Your task to perform on an android device: View the shopping cart on target.com. Search for usb-a on target.com, select the first entry, and add it to the cart. Image 0: 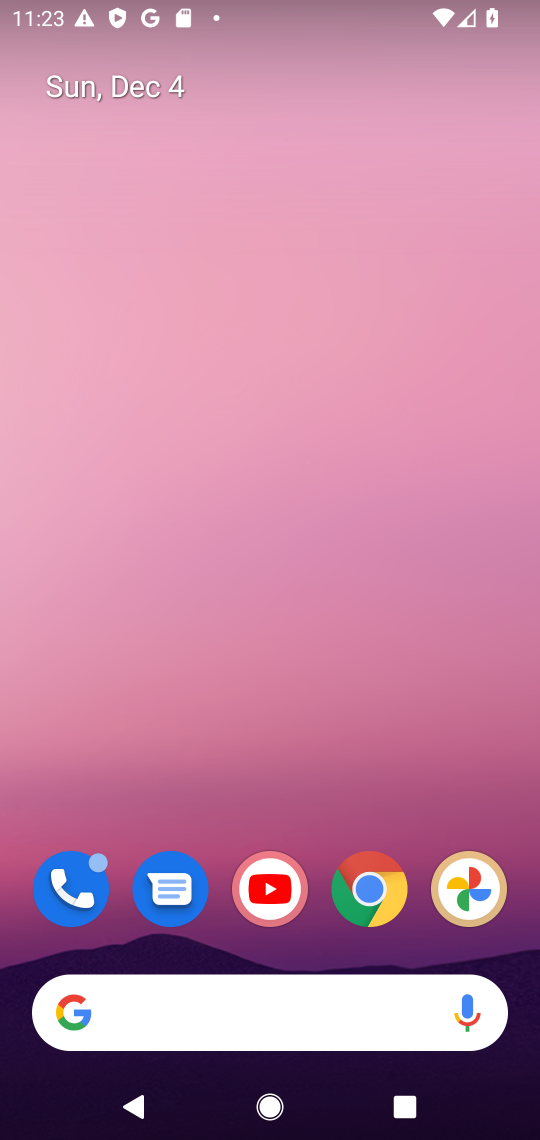
Step 0: click (377, 883)
Your task to perform on an android device: View the shopping cart on target.com. Search for usb-a on target.com, select the first entry, and add it to the cart. Image 1: 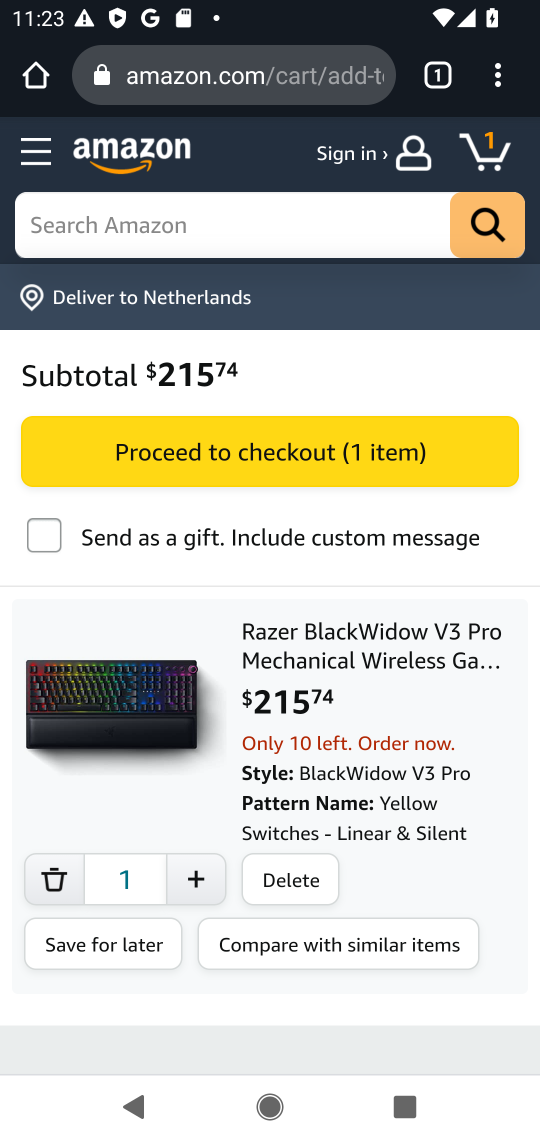
Step 1: click (345, 63)
Your task to perform on an android device: View the shopping cart on target.com. Search for usb-a on target.com, select the first entry, and add it to the cart. Image 2: 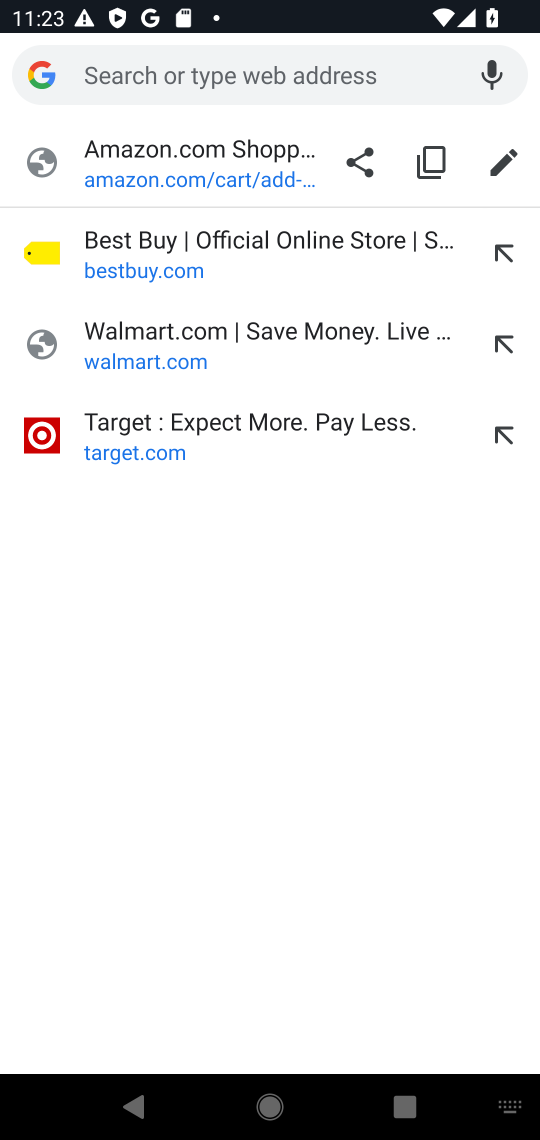
Step 2: click (226, 426)
Your task to perform on an android device: View the shopping cart on target.com. Search for usb-a on target.com, select the first entry, and add it to the cart. Image 3: 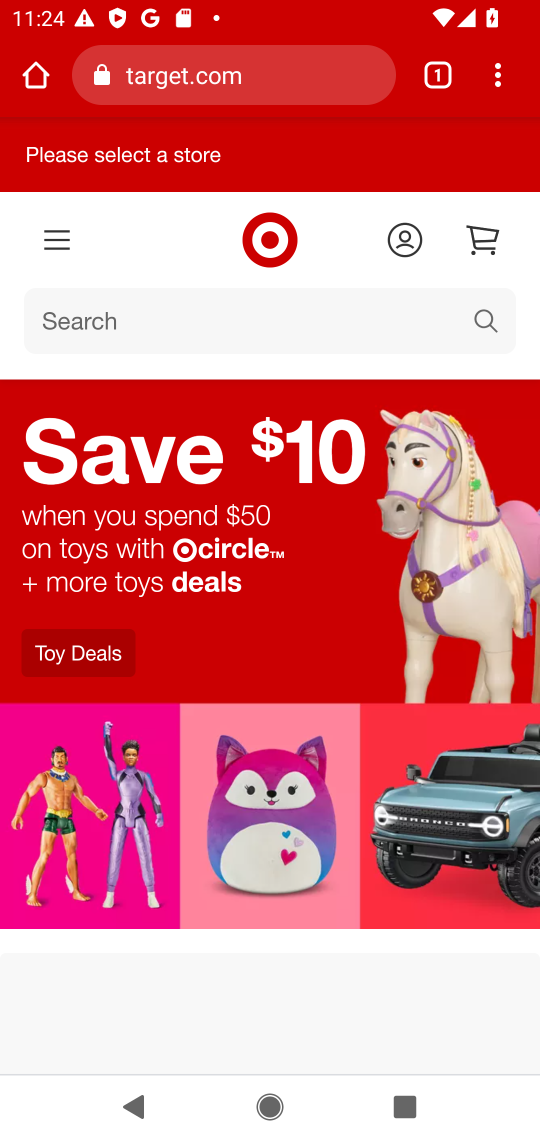
Step 3: click (485, 235)
Your task to perform on an android device: View the shopping cart on target.com. Search for usb-a on target.com, select the first entry, and add it to the cart. Image 4: 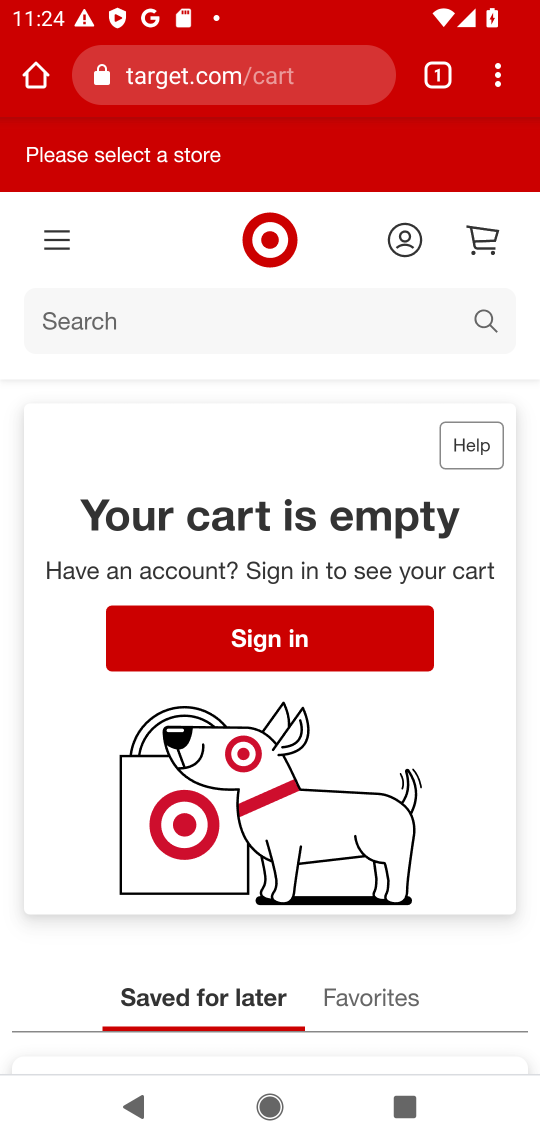
Step 4: click (486, 306)
Your task to perform on an android device: View the shopping cart on target.com. Search for usb-a on target.com, select the first entry, and add it to the cart. Image 5: 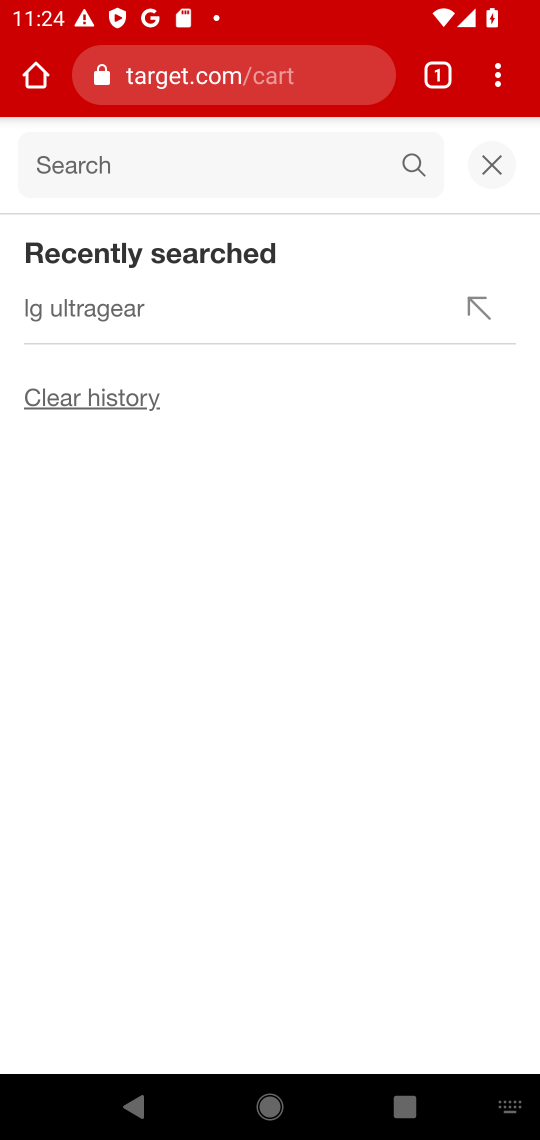
Step 5: type "usb-a"
Your task to perform on an android device: View the shopping cart on target.com. Search for usb-a on target.com, select the first entry, and add it to the cart. Image 6: 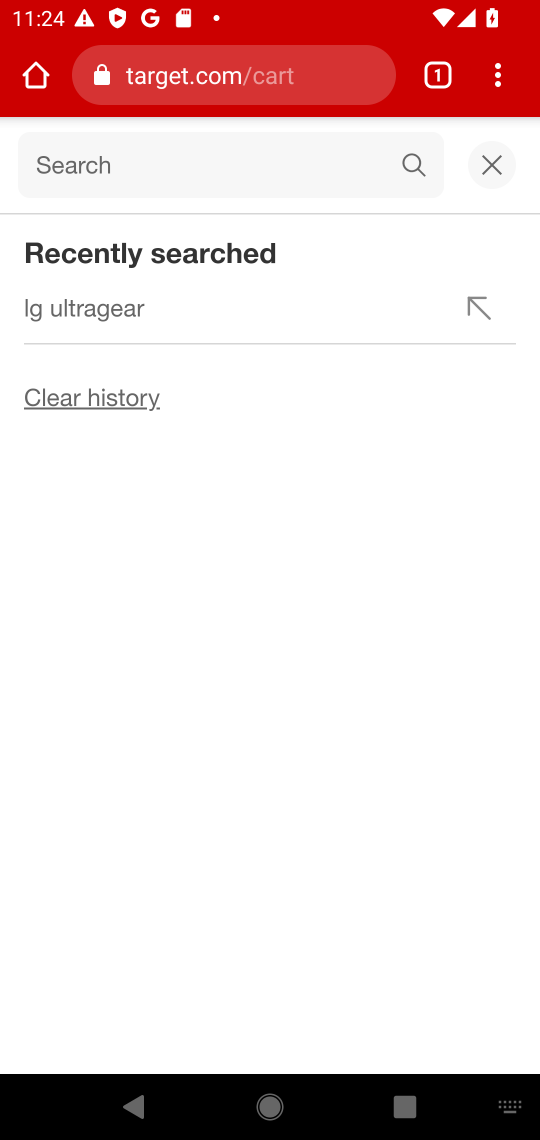
Step 6: press enter
Your task to perform on an android device: View the shopping cart on target.com. Search for usb-a on target.com, select the first entry, and add it to the cart. Image 7: 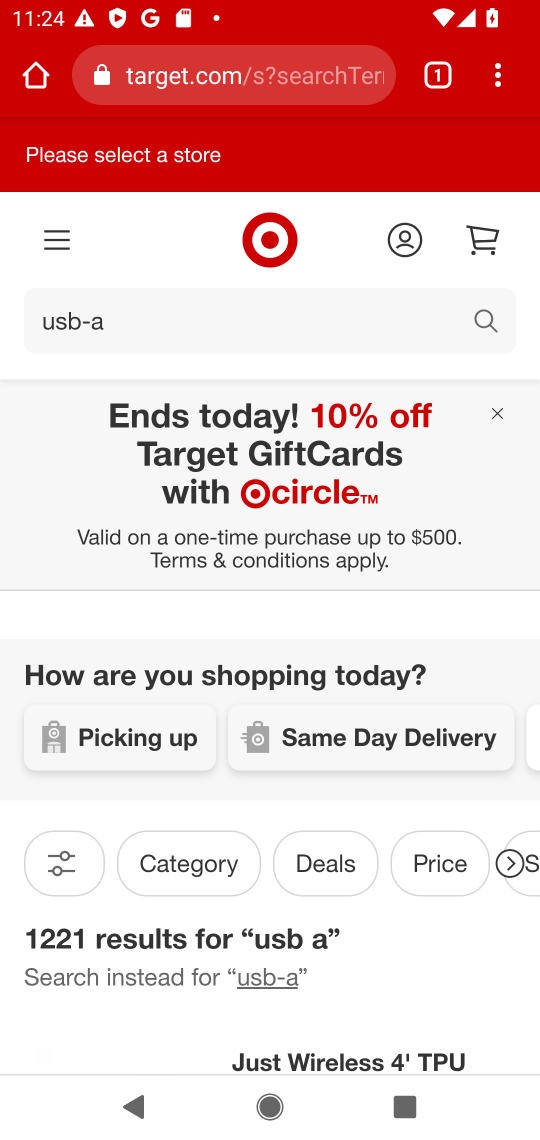
Step 7: drag from (410, 954) to (394, 338)
Your task to perform on an android device: View the shopping cart on target.com. Search for usb-a on target.com, select the first entry, and add it to the cart. Image 8: 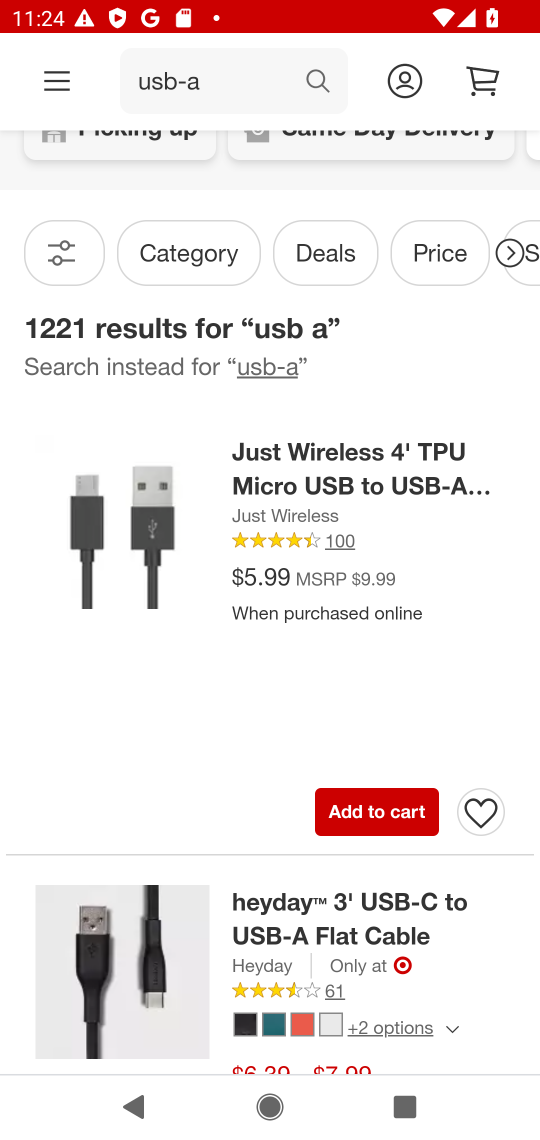
Step 8: drag from (498, 717) to (485, 423)
Your task to perform on an android device: View the shopping cart on target.com. Search for usb-a on target.com, select the first entry, and add it to the cart. Image 9: 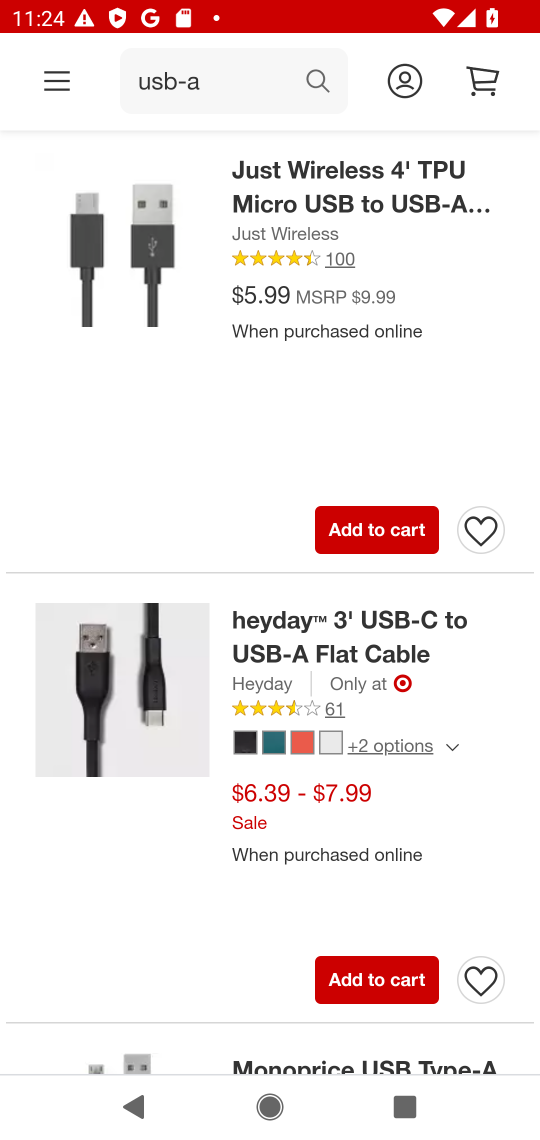
Step 9: drag from (492, 872) to (509, 528)
Your task to perform on an android device: View the shopping cart on target.com. Search for usb-a on target.com, select the first entry, and add it to the cart. Image 10: 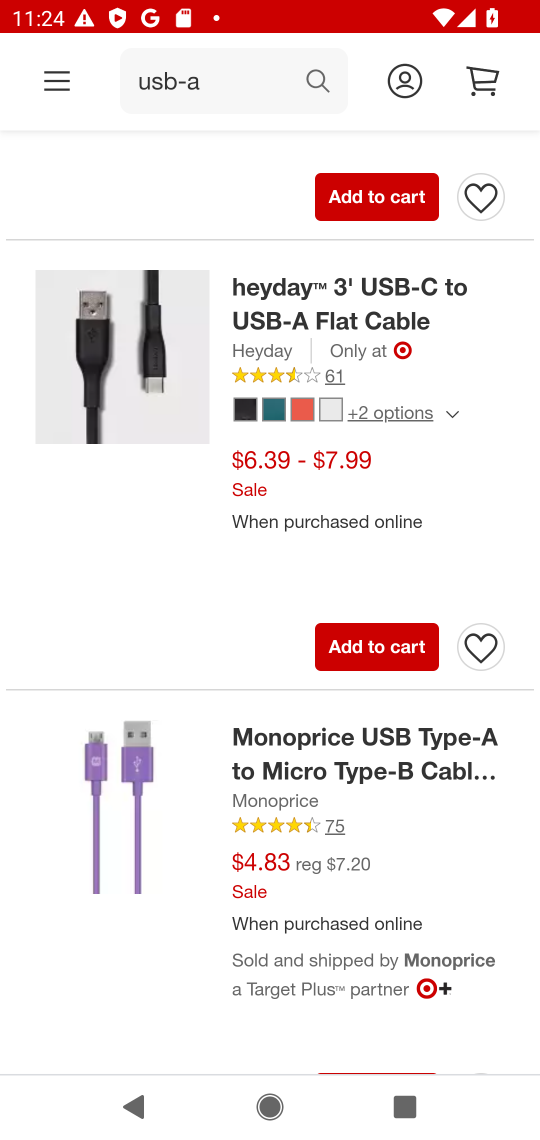
Step 10: drag from (439, 244) to (539, 662)
Your task to perform on an android device: View the shopping cart on target.com. Search for usb-a on target.com, select the first entry, and add it to the cart. Image 11: 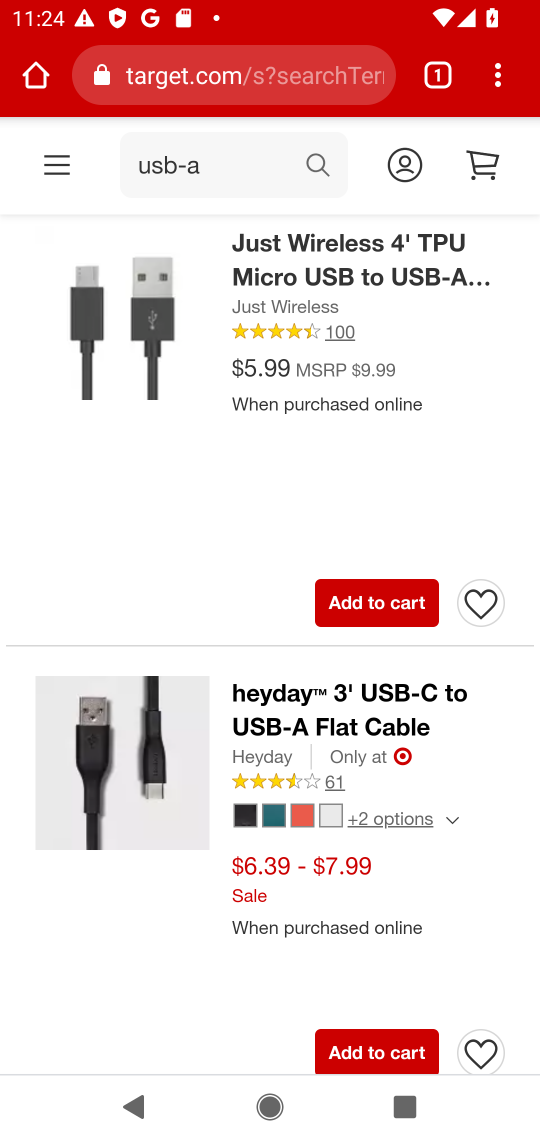
Step 11: click (137, 308)
Your task to perform on an android device: View the shopping cart on target.com. Search for usb-a on target.com, select the first entry, and add it to the cart. Image 12: 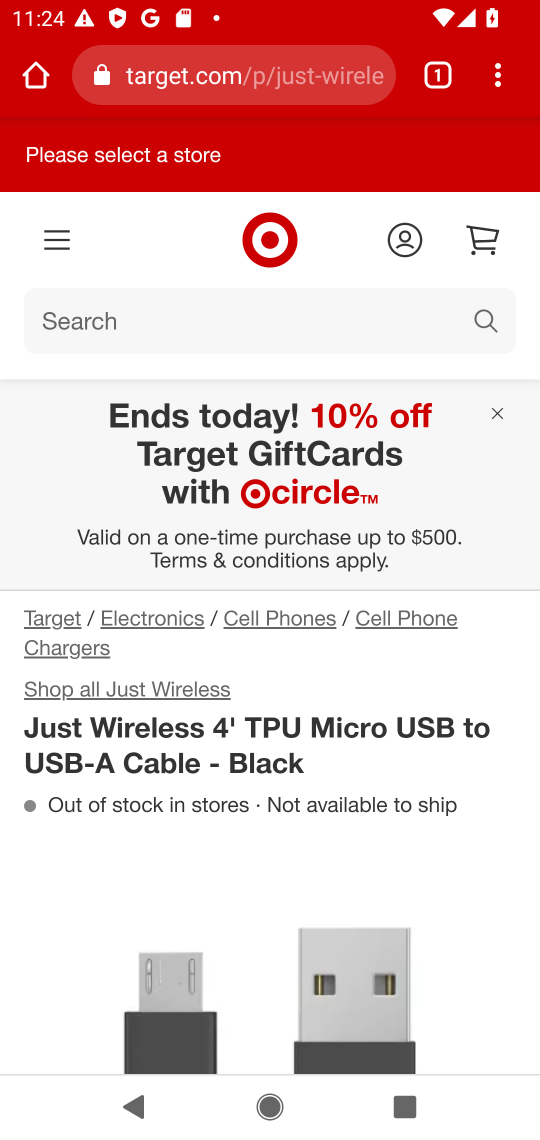
Step 12: drag from (417, 785) to (477, 384)
Your task to perform on an android device: View the shopping cart on target.com. Search for usb-a on target.com, select the first entry, and add it to the cart. Image 13: 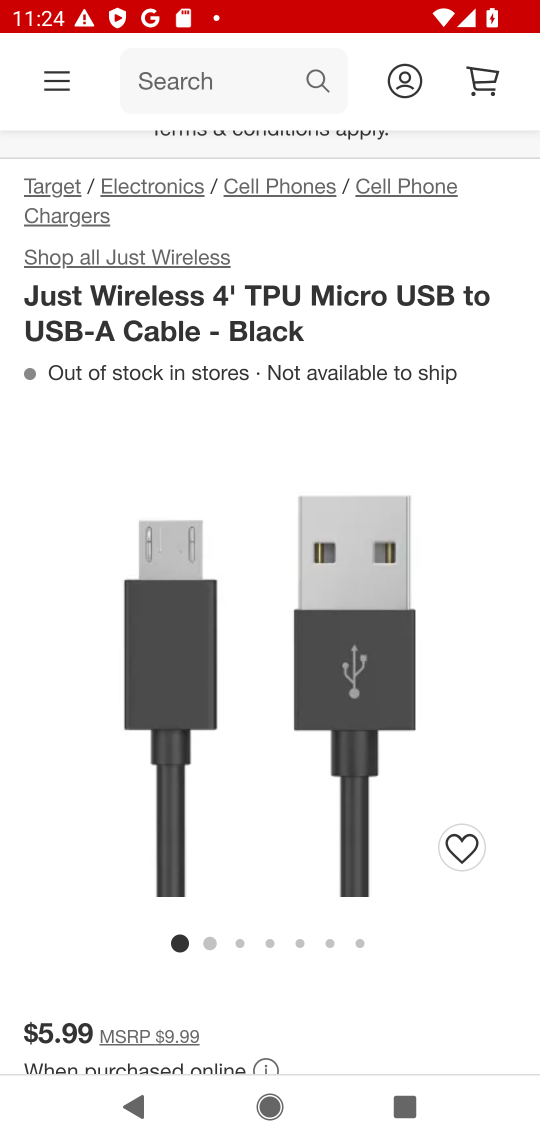
Step 13: drag from (440, 630) to (468, 191)
Your task to perform on an android device: View the shopping cart on target.com. Search for usb-a on target.com, select the first entry, and add it to the cart. Image 14: 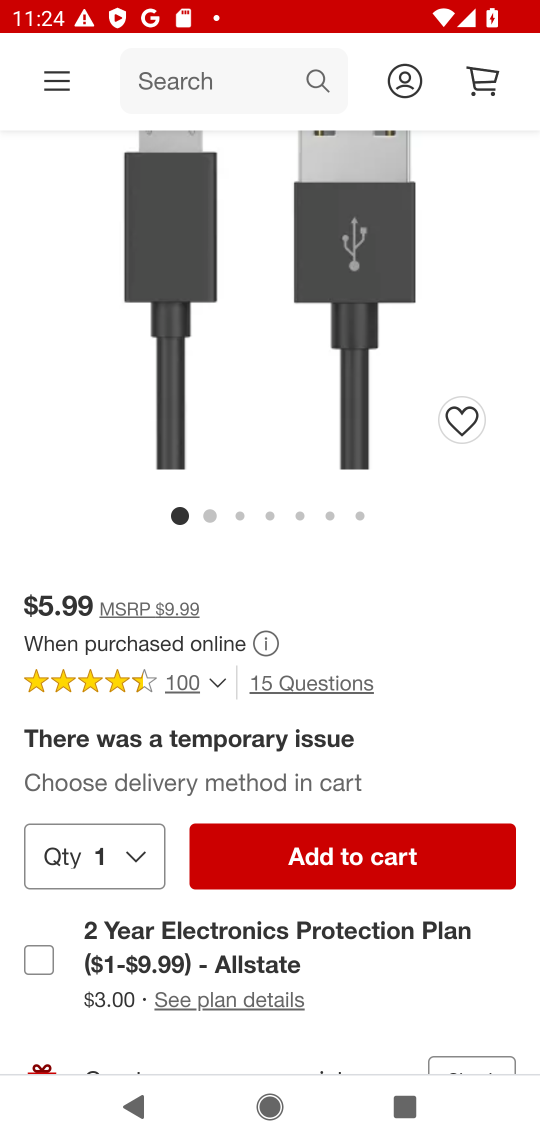
Step 14: click (403, 850)
Your task to perform on an android device: View the shopping cart on target.com. Search for usb-a on target.com, select the first entry, and add it to the cart. Image 15: 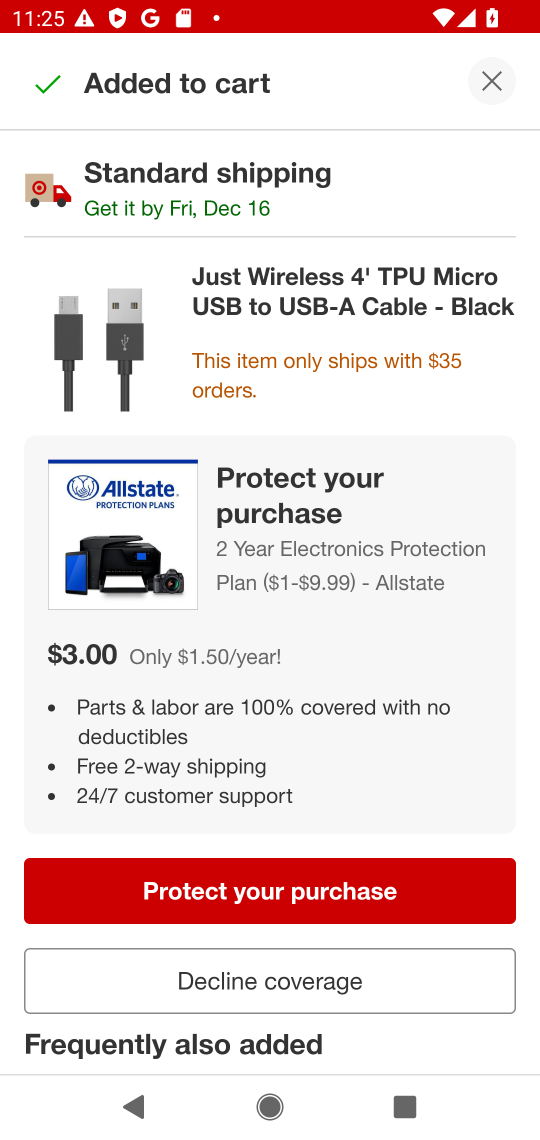
Step 15: task complete